Your task to perform on an android device: see sites visited before in the chrome app Image 0: 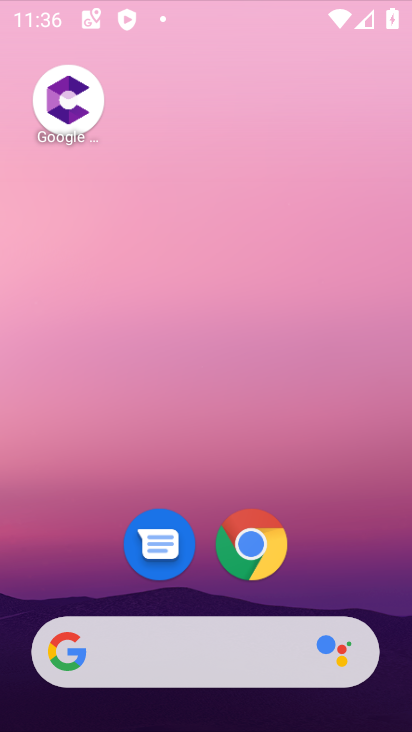
Step 0: drag from (411, 328) to (223, 2)
Your task to perform on an android device: see sites visited before in the chrome app Image 1: 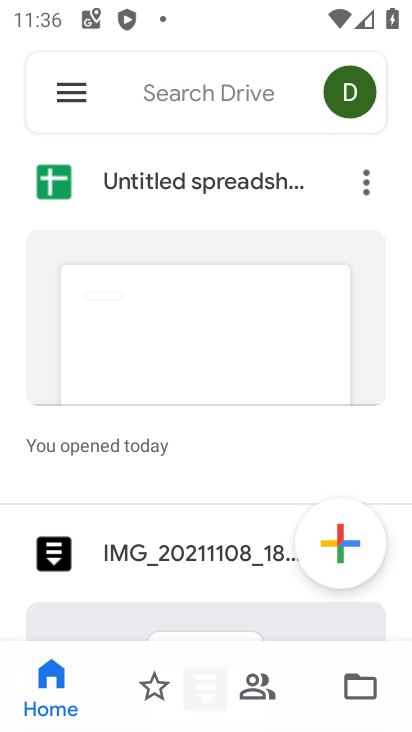
Step 1: press back button
Your task to perform on an android device: see sites visited before in the chrome app Image 2: 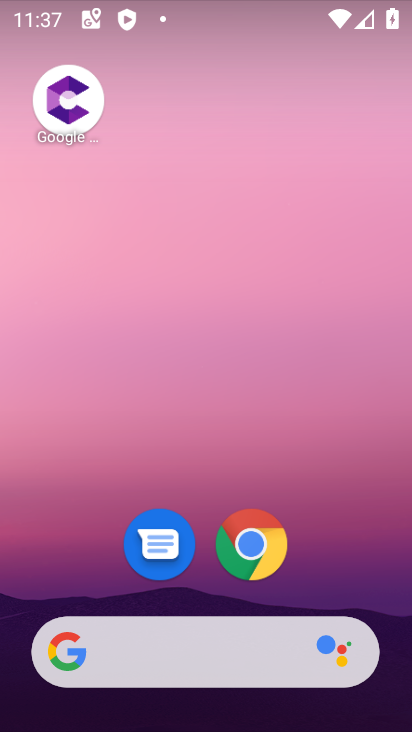
Step 2: press home button
Your task to perform on an android device: see sites visited before in the chrome app Image 3: 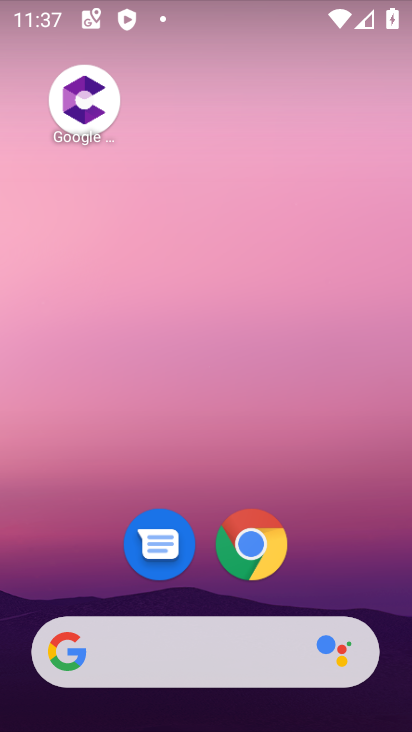
Step 3: drag from (344, 593) to (231, 9)
Your task to perform on an android device: see sites visited before in the chrome app Image 4: 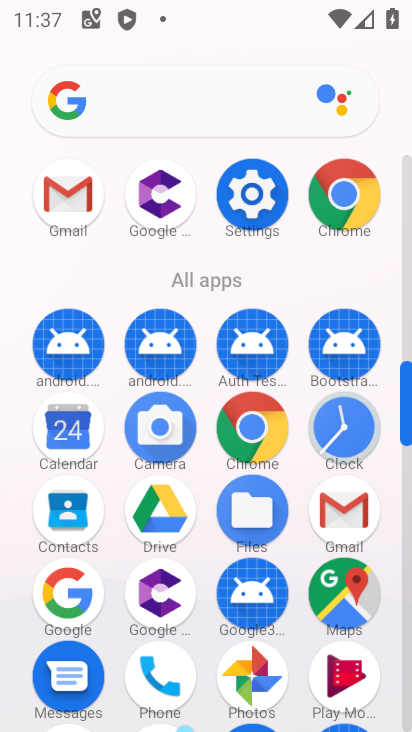
Step 4: click (343, 212)
Your task to perform on an android device: see sites visited before in the chrome app Image 5: 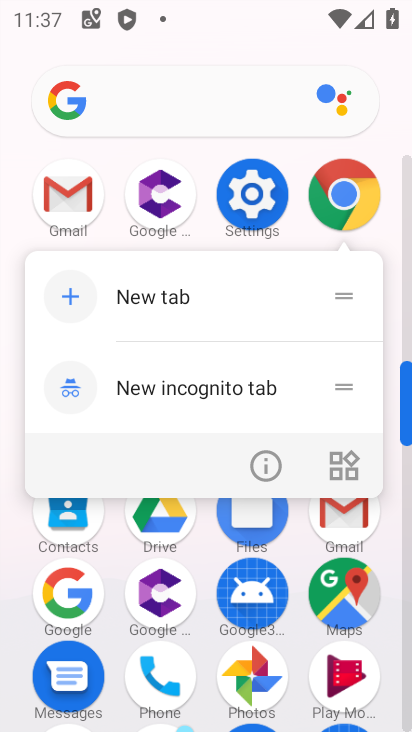
Step 5: click (339, 193)
Your task to perform on an android device: see sites visited before in the chrome app Image 6: 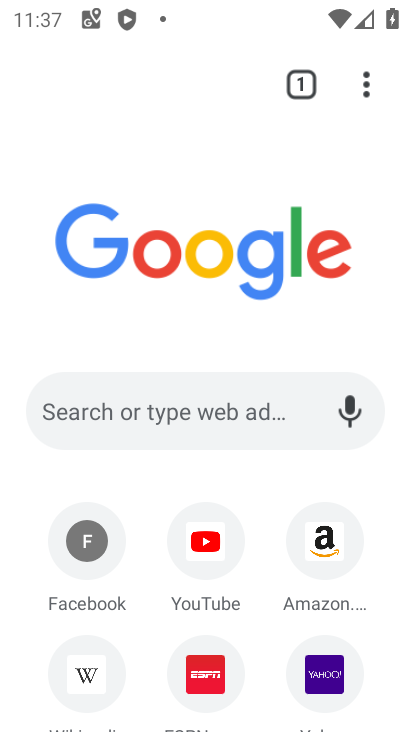
Step 6: task complete